Your task to perform on an android device: What's the weather today? Image 0: 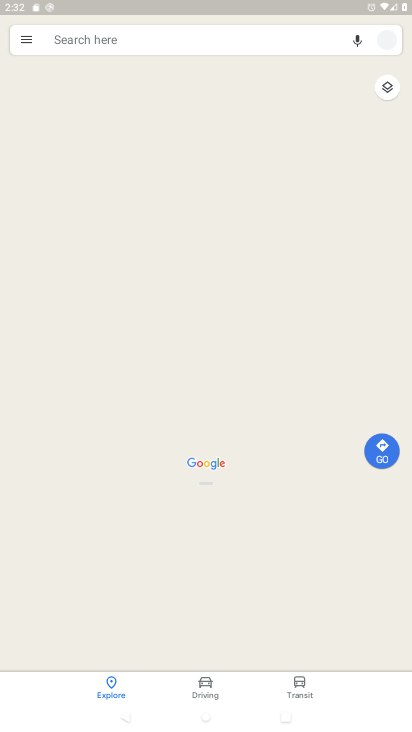
Step 0: drag from (193, 540) to (179, 163)
Your task to perform on an android device: What's the weather today? Image 1: 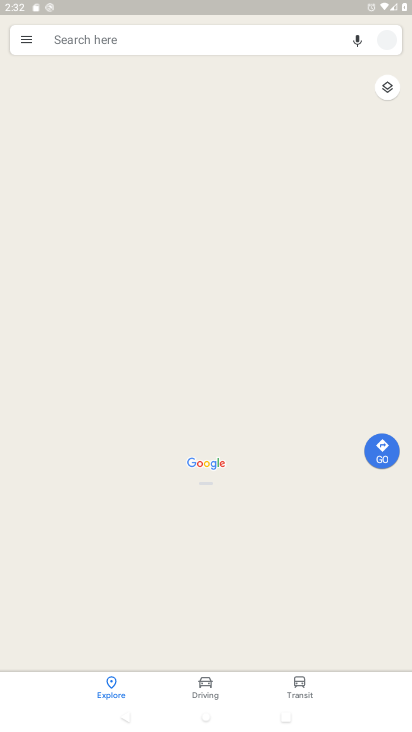
Step 1: press home button
Your task to perform on an android device: What's the weather today? Image 2: 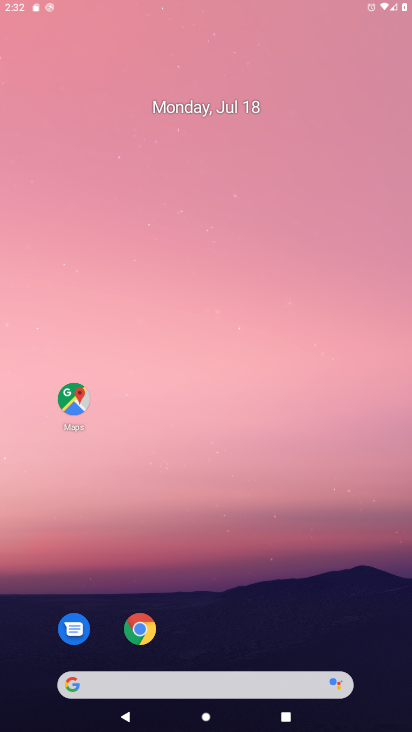
Step 2: drag from (192, 554) to (182, 66)
Your task to perform on an android device: What's the weather today? Image 3: 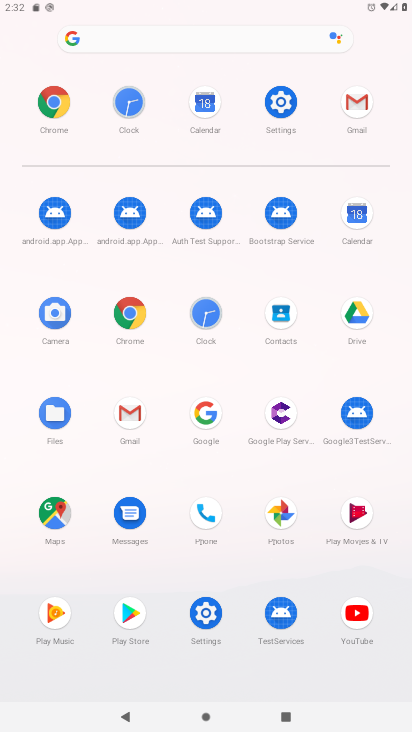
Step 3: click (209, 320)
Your task to perform on an android device: What's the weather today? Image 4: 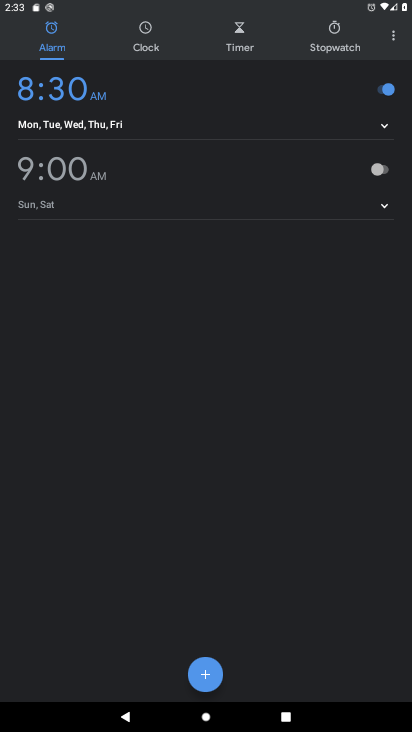
Step 4: click (395, 38)
Your task to perform on an android device: What's the weather today? Image 5: 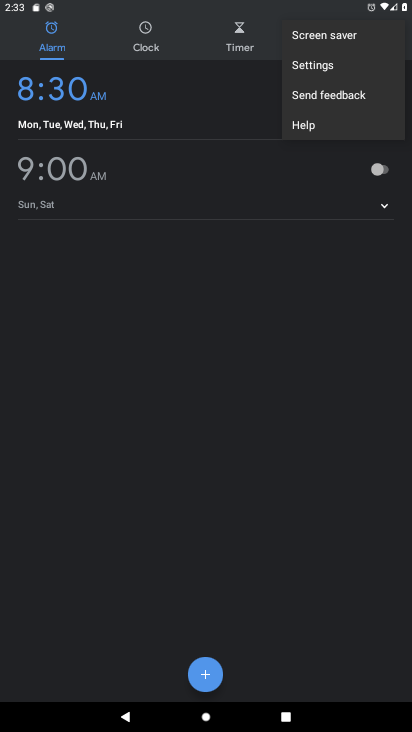
Step 5: click (323, 66)
Your task to perform on an android device: What's the weather today? Image 6: 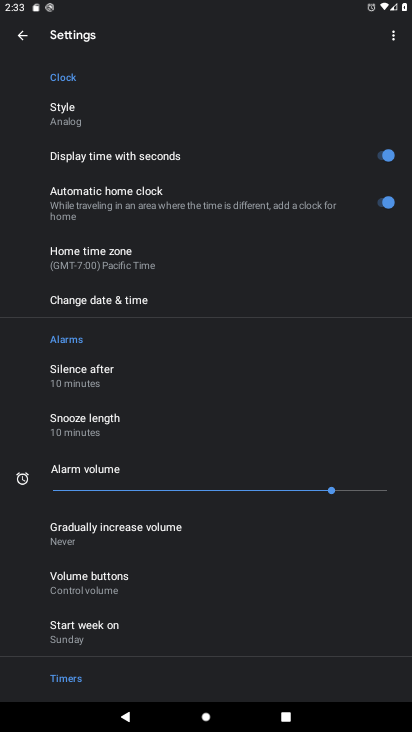
Step 6: task complete